Your task to perform on an android device: delete a single message in the gmail app Image 0: 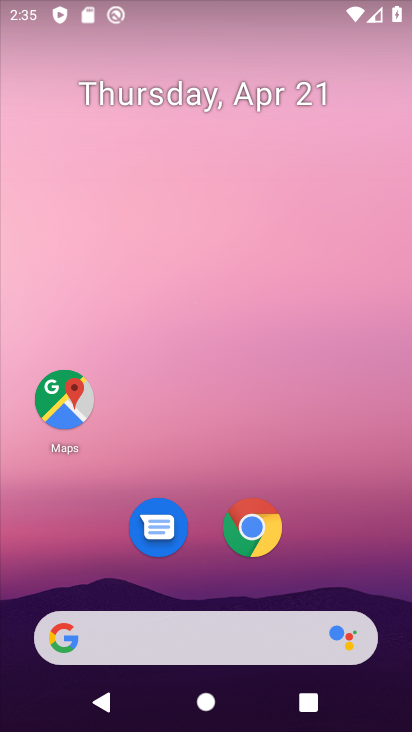
Step 0: drag from (162, 585) to (178, 309)
Your task to perform on an android device: delete a single message in the gmail app Image 1: 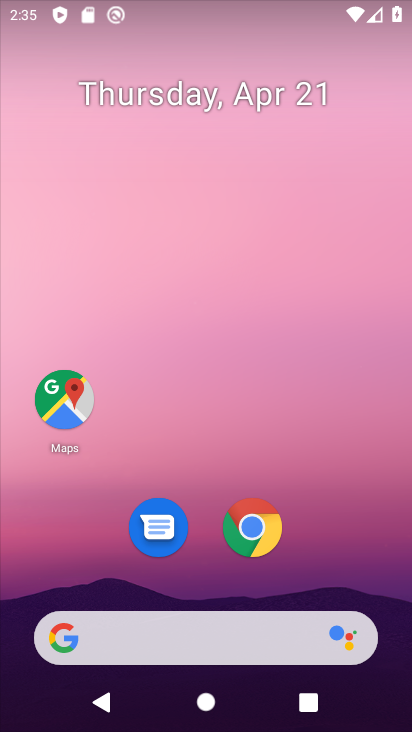
Step 1: drag from (208, 616) to (205, 250)
Your task to perform on an android device: delete a single message in the gmail app Image 2: 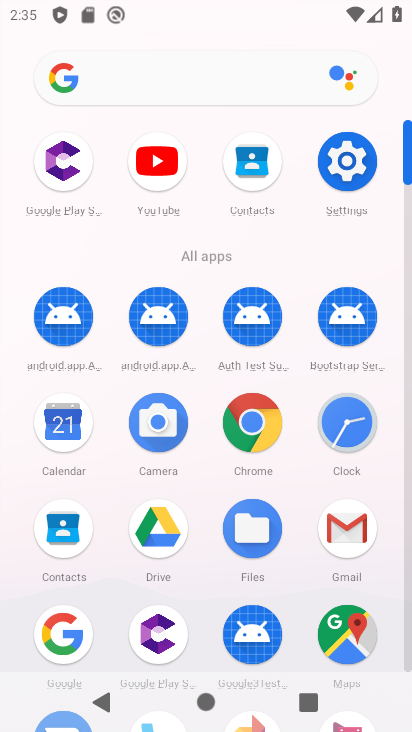
Step 2: click (345, 546)
Your task to perform on an android device: delete a single message in the gmail app Image 3: 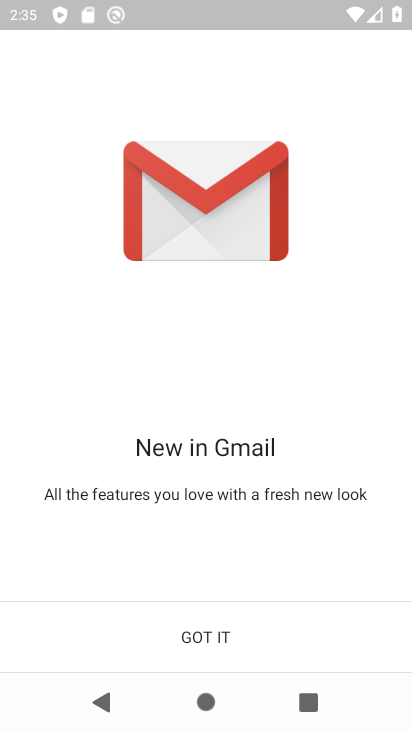
Step 3: click (187, 637)
Your task to perform on an android device: delete a single message in the gmail app Image 4: 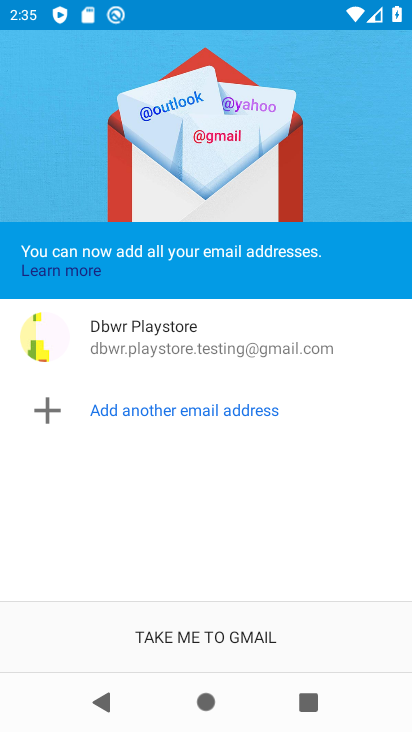
Step 4: click (187, 637)
Your task to perform on an android device: delete a single message in the gmail app Image 5: 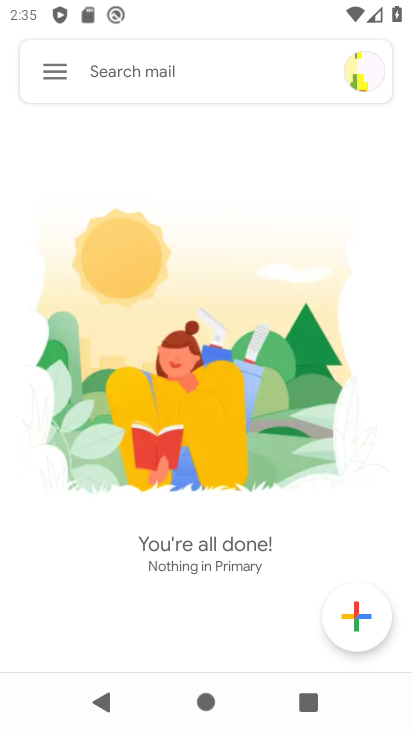
Step 5: task complete